Your task to perform on an android device: Go to wifi settings Image 0: 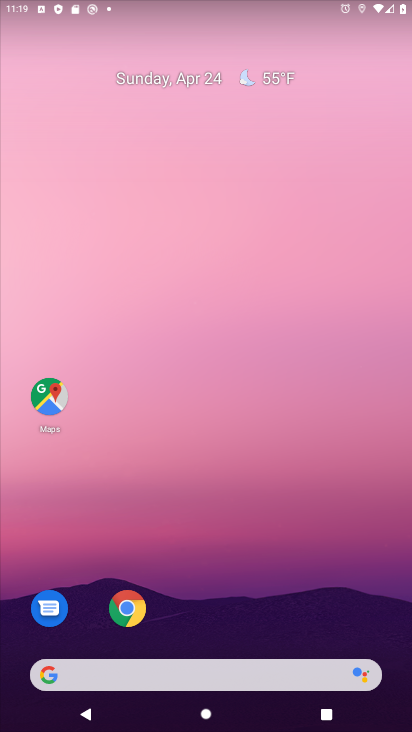
Step 0: drag from (383, 614) to (381, 32)
Your task to perform on an android device: Go to wifi settings Image 1: 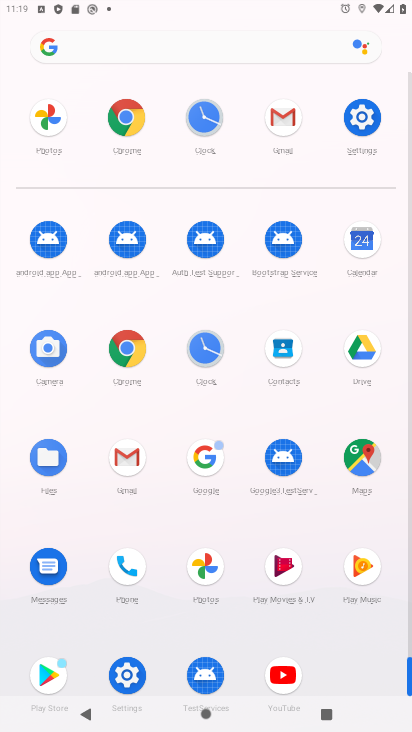
Step 1: click (126, 673)
Your task to perform on an android device: Go to wifi settings Image 2: 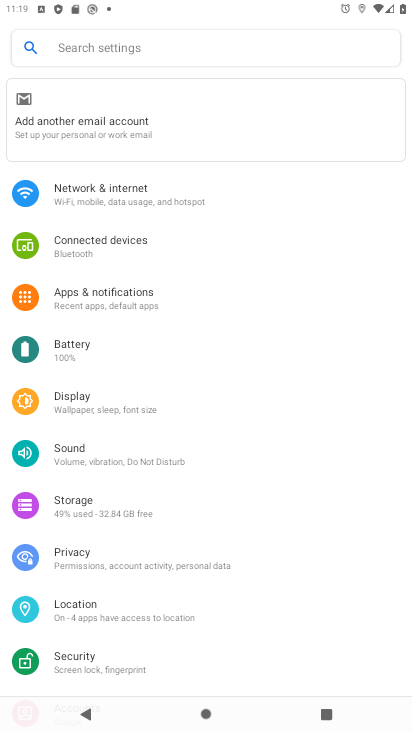
Step 2: click (74, 194)
Your task to perform on an android device: Go to wifi settings Image 3: 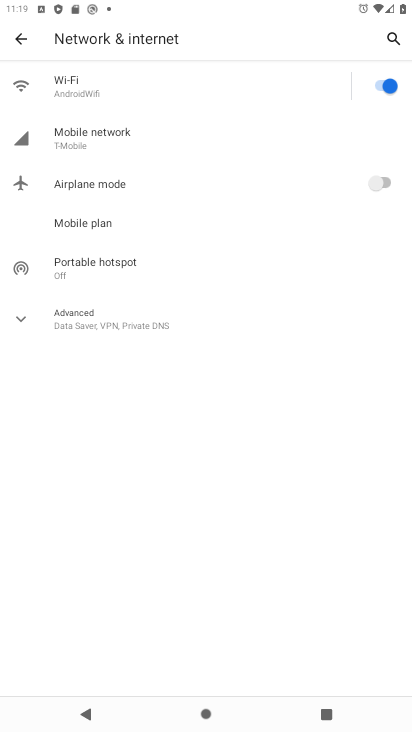
Step 3: click (61, 78)
Your task to perform on an android device: Go to wifi settings Image 4: 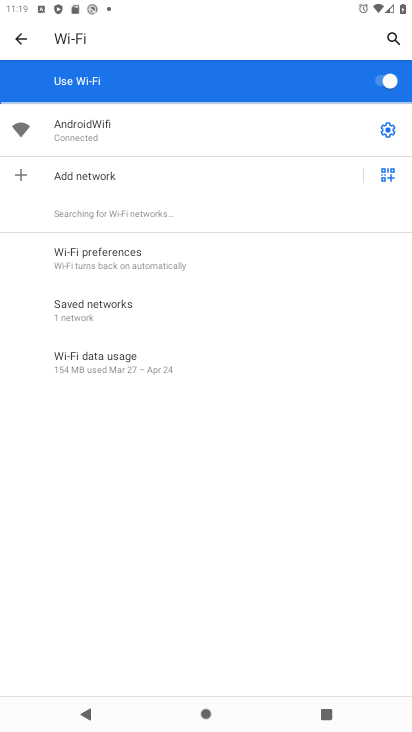
Step 4: click (384, 131)
Your task to perform on an android device: Go to wifi settings Image 5: 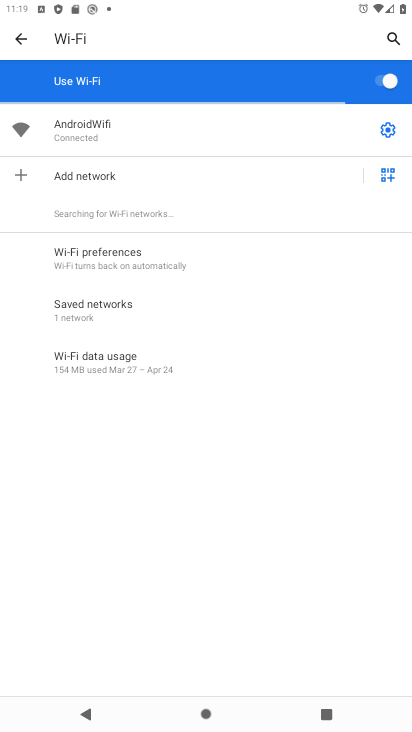
Step 5: click (386, 132)
Your task to perform on an android device: Go to wifi settings Image 6: 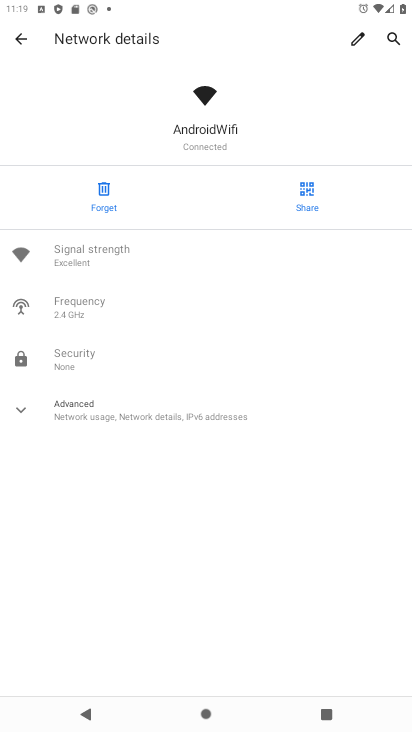
Step 6: click (15, 409)
Your task to perform on an android device: Go to wifi settings Image 7: 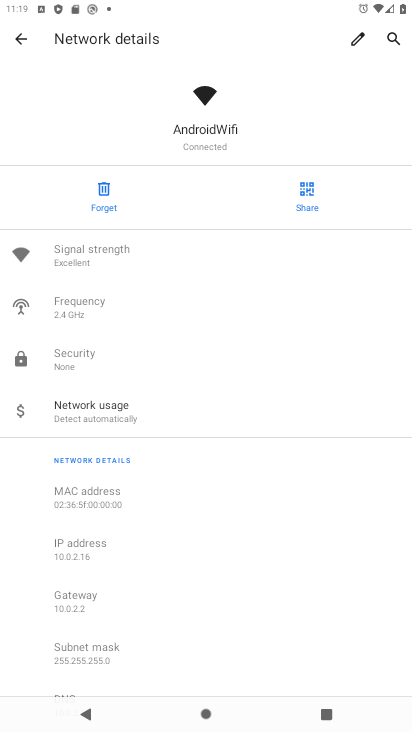
Step 7: task complete